Your task to perform on an android device: What's the weather today? Image 0: 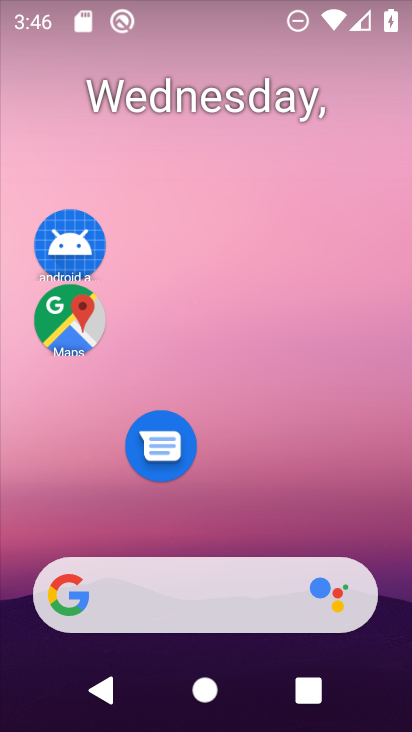
Step 0: drag from (339, 490) to (374, 41)
Your task to perform on an android device: What's the weather today? Image 1: 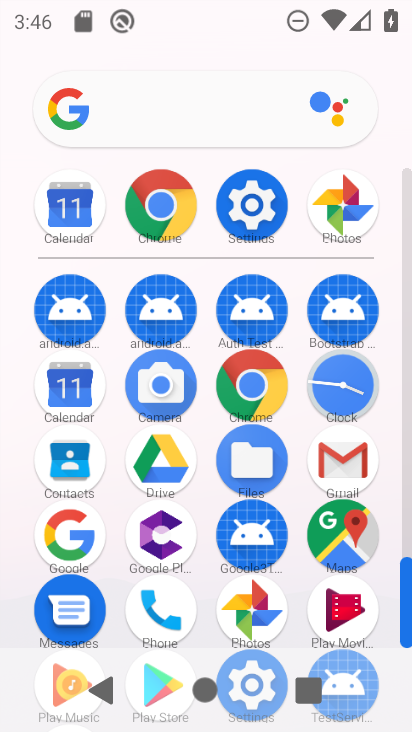
Step 1: click (220, 116)
Your task to perform on an android device: What's the weather today? Image 2: 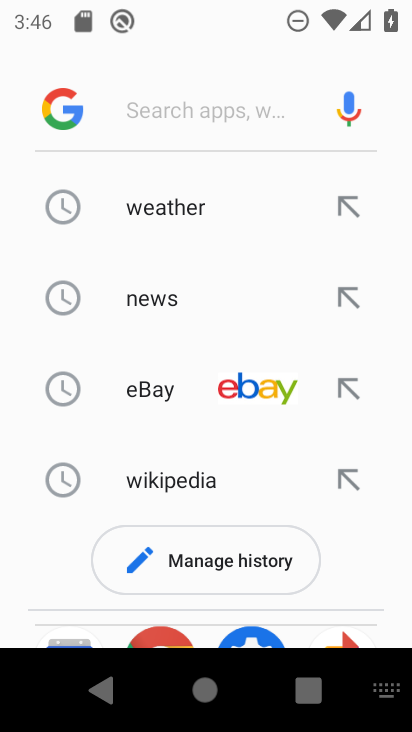
Step 2: click (210, 194)
Your task to perform on an android device: What's the weather today? Image 3: 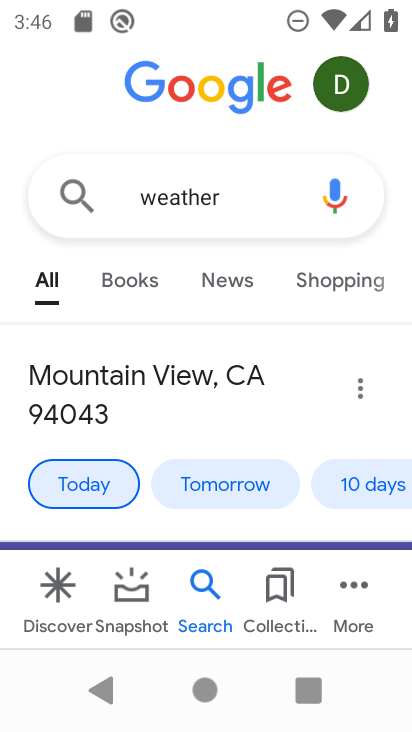
Step 3: task complete